Your task to perform on an android device: Check the settings for the Pandora app Image 0: 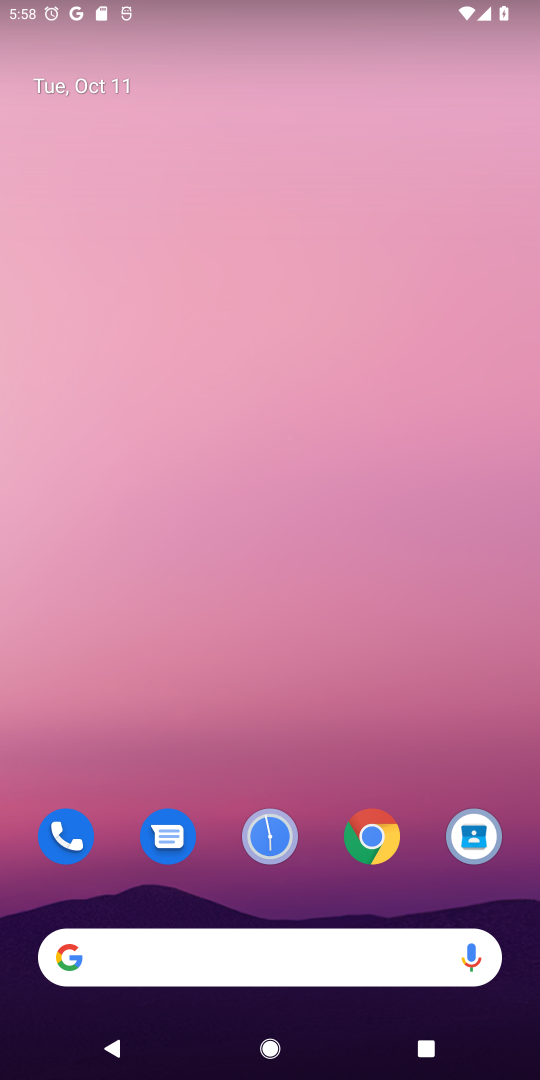
Step 0: task impossible